Your task to perform on an android device: turn off priority inbox in the gmail app Image 0: 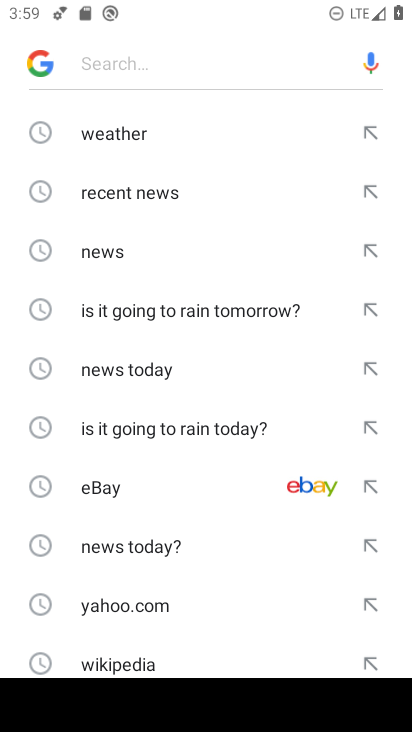
Step 0: press home button
Your task to perform on an android device: turn off priority inbox in the gmail app Image 1: 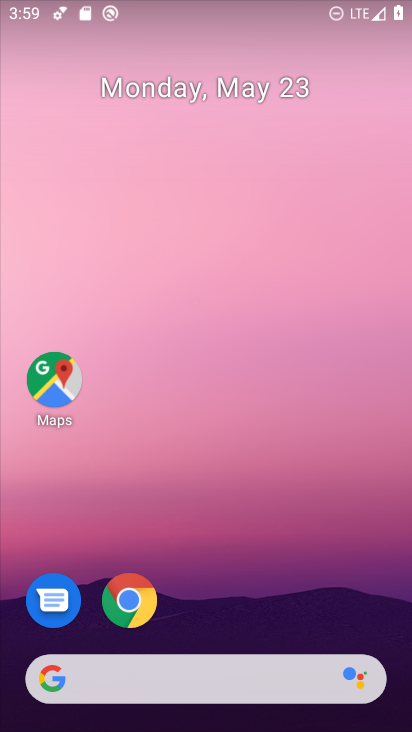
Step 1: drag from (263, 641) to (281, 1)
Your task to perform on an android device: turn off priority inbox in the gmail app Image 2: 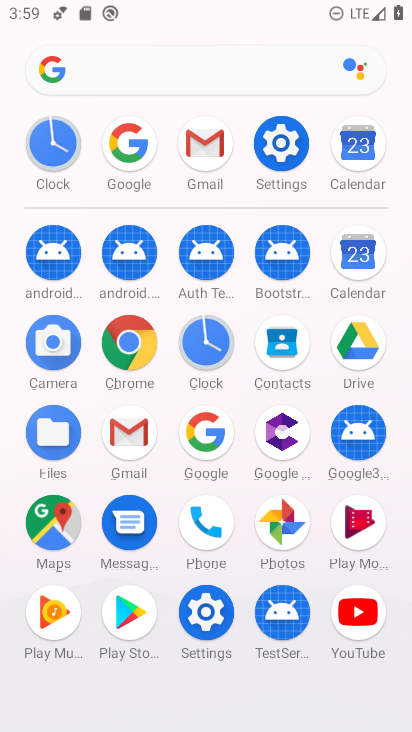
Step 2: click (202, 145)
Your task to perform on an android device: turn off priority inbox in the gmail app Image 3: 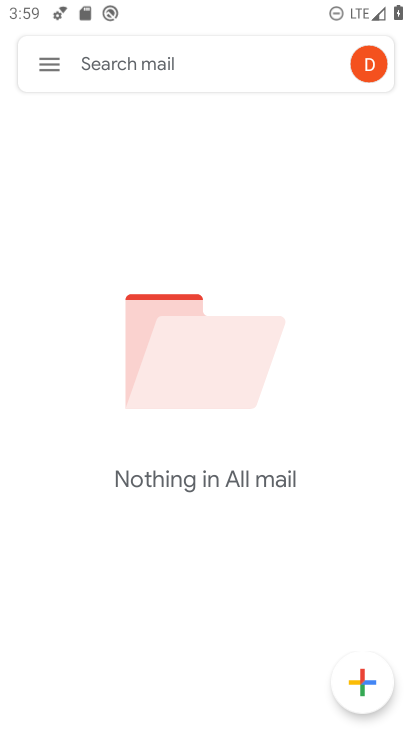
Step 3: click (51, 64)
Your task to perform on an android device: turn off priority inbox in the gmail app Image 4: 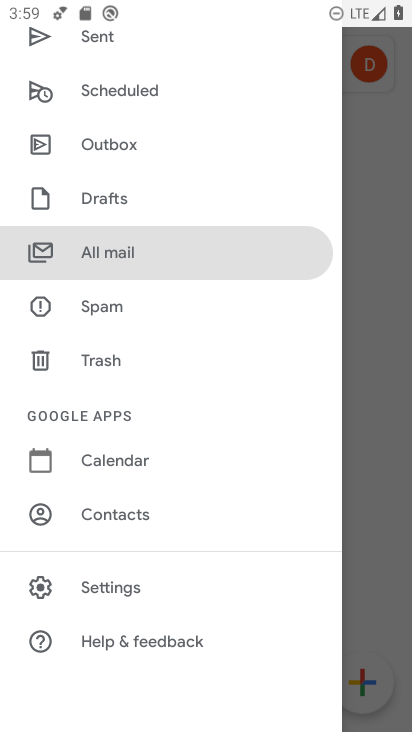
Step 4: click (108, 589)
Your task to perform on an android device: turn off priority inbox in the gmail app Image 5: 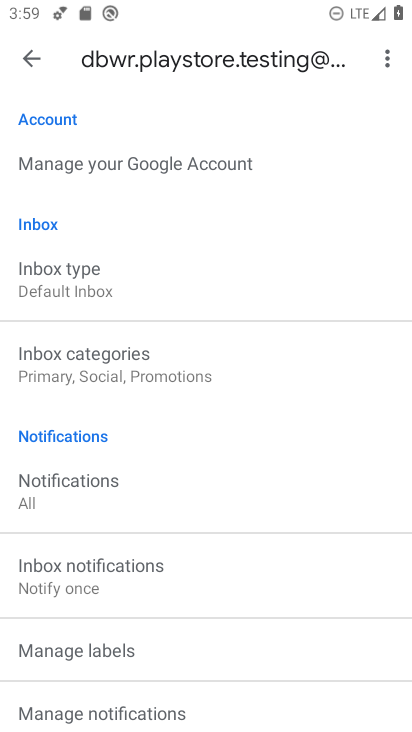
Step 5: click (63, 288)
Your task to perform on an android device: turn off priority inbox in the gmail app Image 6: 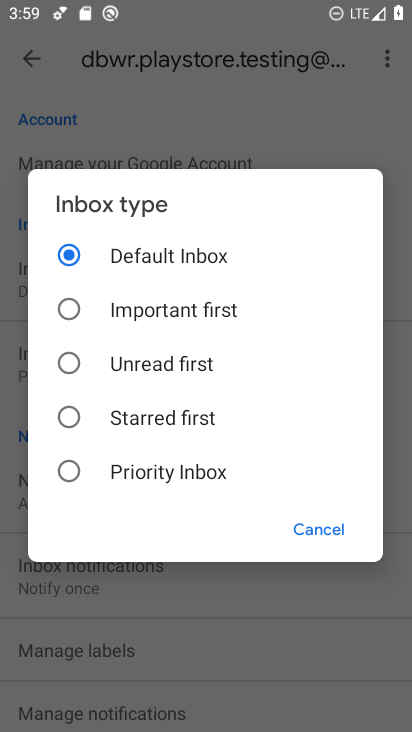
Step 6: task complete